Your task to perform on an android device: open the mobile data screen to see how much data has been used Image 0: 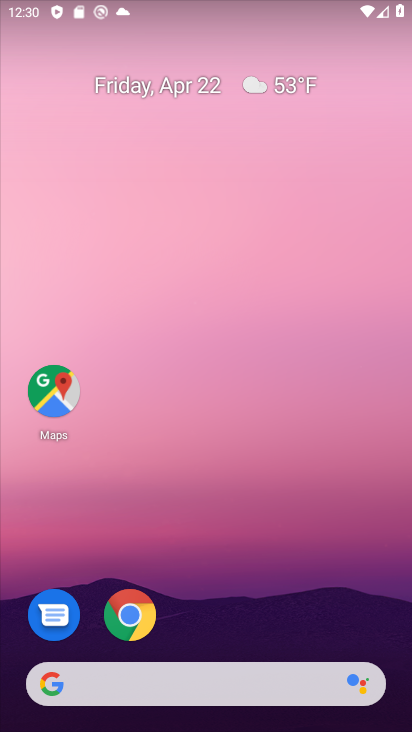
Step 0: drag from (178, 722) to (275, 13)
Your task to perform on an android device: open the mobile data screen to see how much data has been used Image 1: 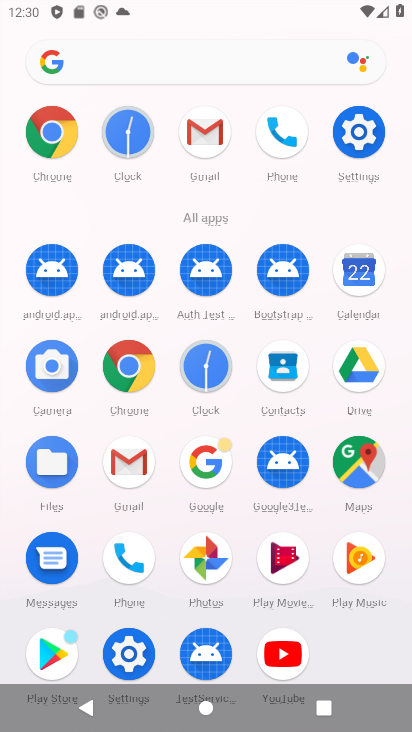
Step 1: click (372, 128)
Your task to perform on an android device: open the mobile data screen to see how much data has been used Image 2: 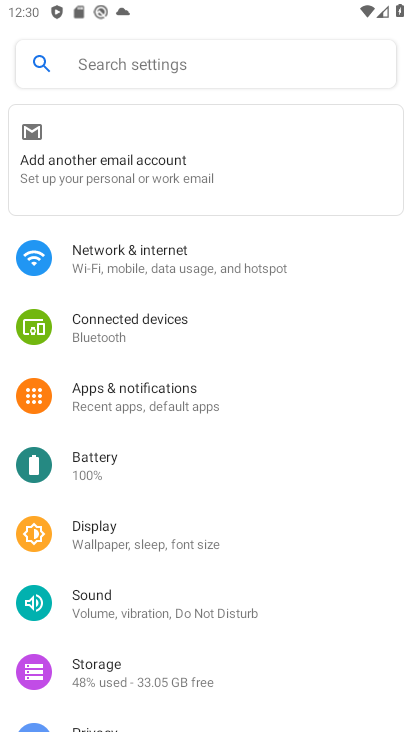
Step 2: click (244, 260)
Your task to perform on an android device: open the mobile data screen to see how much data has been used Image 3: 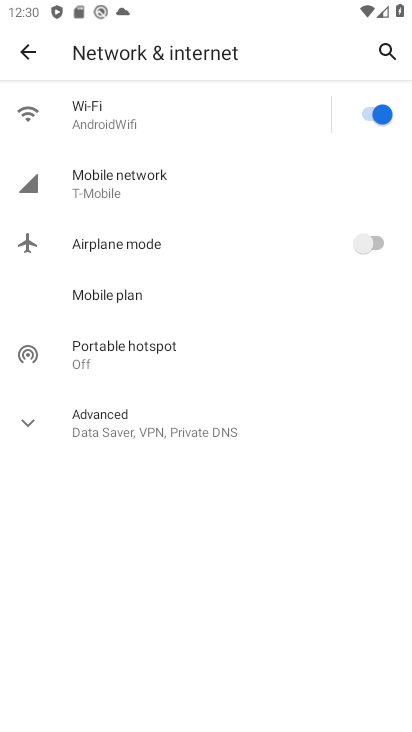
Step 3: click (208, 185)
Your task to perform on an android device: open the mobile data screen to see how much data has been used Image 4: 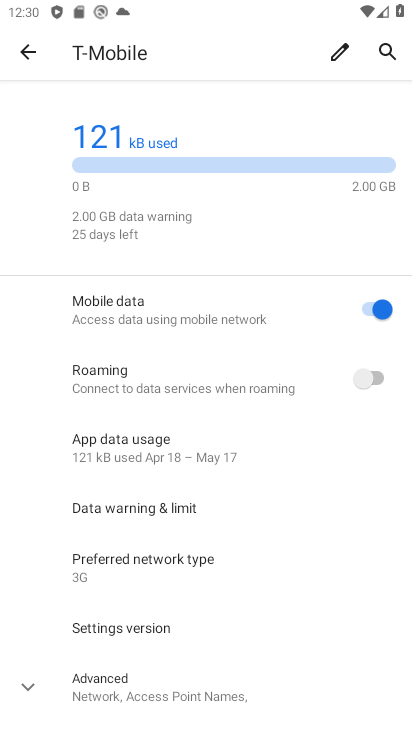
Step 4: task complete